Your task to perform on an android device: Clear the shopping cart on newegg. Search for "logitech g910" on newegg, select the first entry, add it to the cart, then select checkout. Image 0: 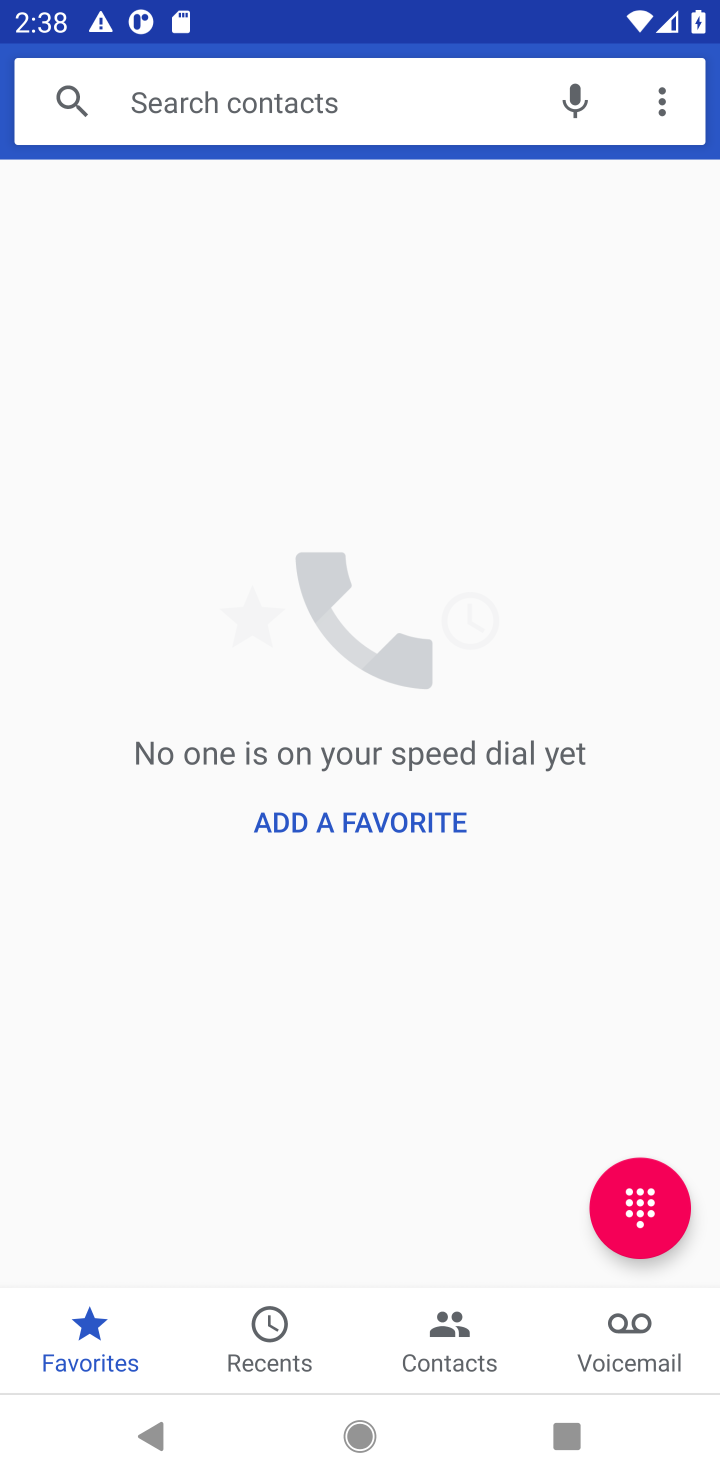
Step 0: press home button
Your task to perform on an android device: Clear the shopping cart on newegg. Search for "logitech g910" on newegg, select the first entry, add it to the cart, then select checkout. Image 1: 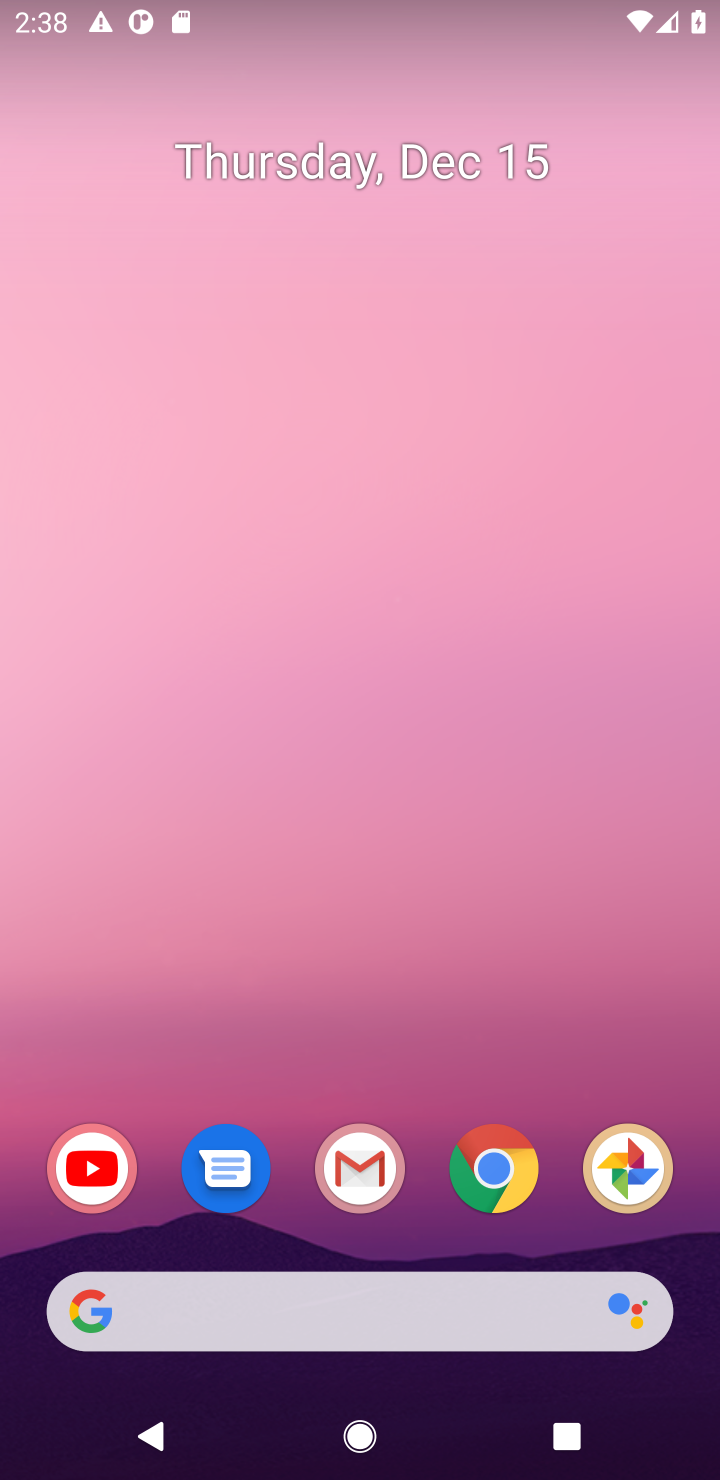
Step 1: click (483, 1185)
Your task to perform on an android device: Clear the shopping cart on newegg. Search for "logitech g910" on newegg, select the first entry, add it to the cart, then select checkout. Image 2: 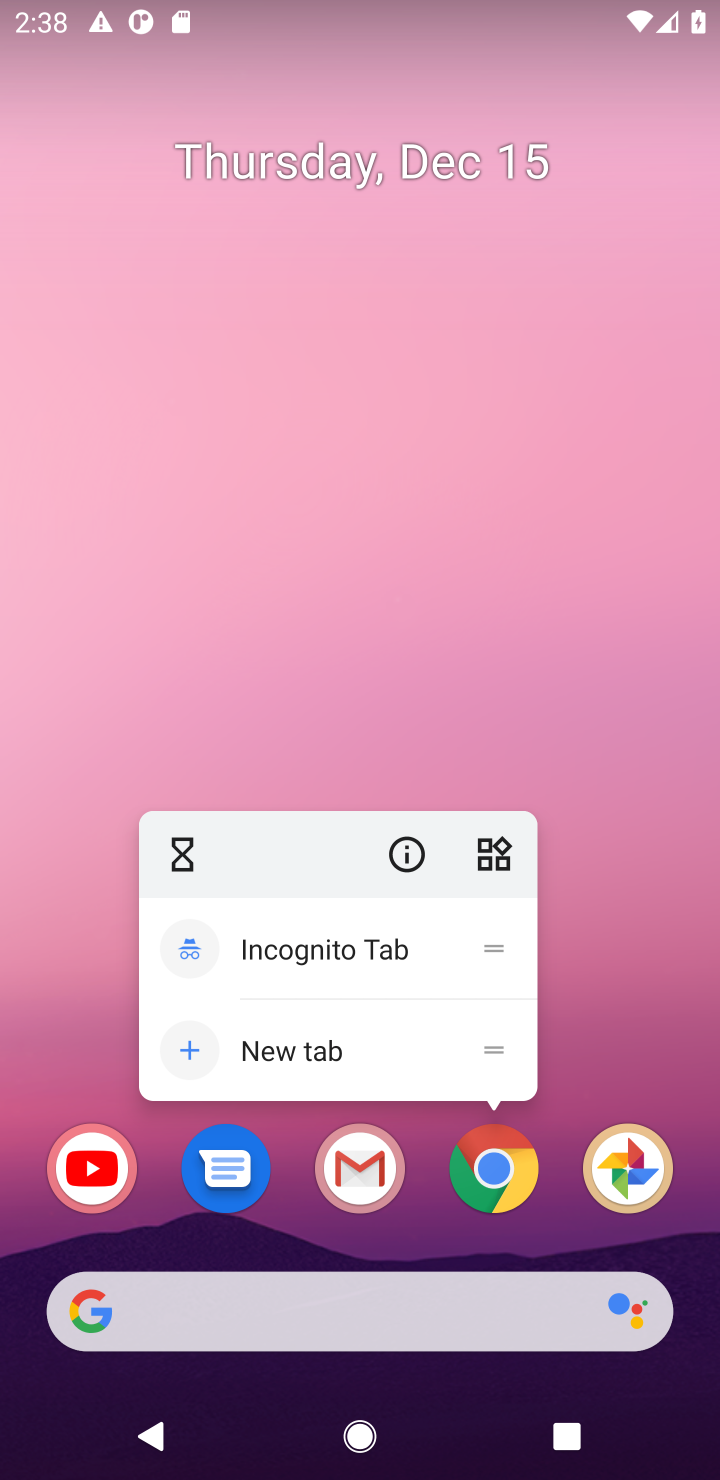
Step 2: click (484, 1187)
Your task to perform on an android device: Clear the shopping cart on newegg. Search for "logitech g910" on newegg, select the first entry, add it to the cart, then select checkout. Image 3: 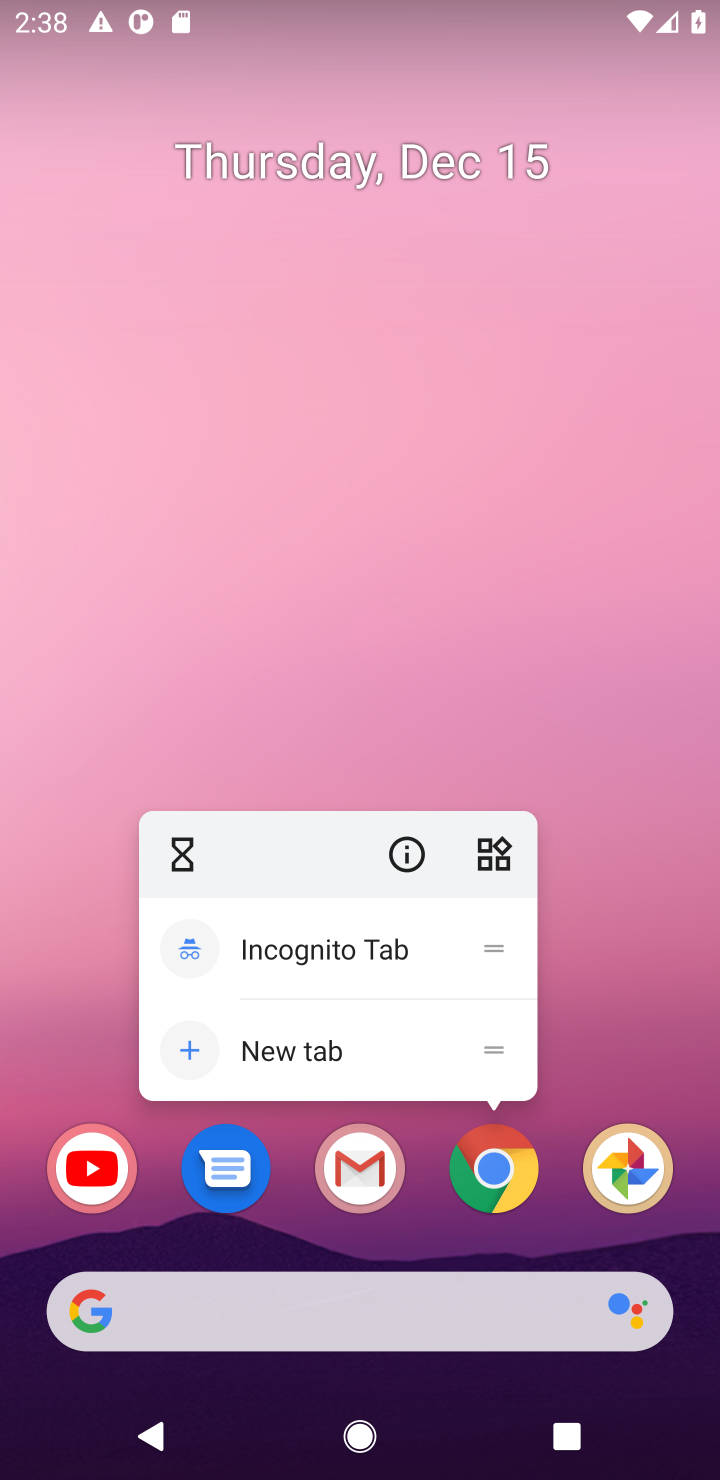
Step 3: click (484, 1187)
Your task to perform on an android device: Clear the shopping cart on newegg. Search for "logitech g910" on newegg, select the first entry, add it to the cart, then select checkout. Image 4: 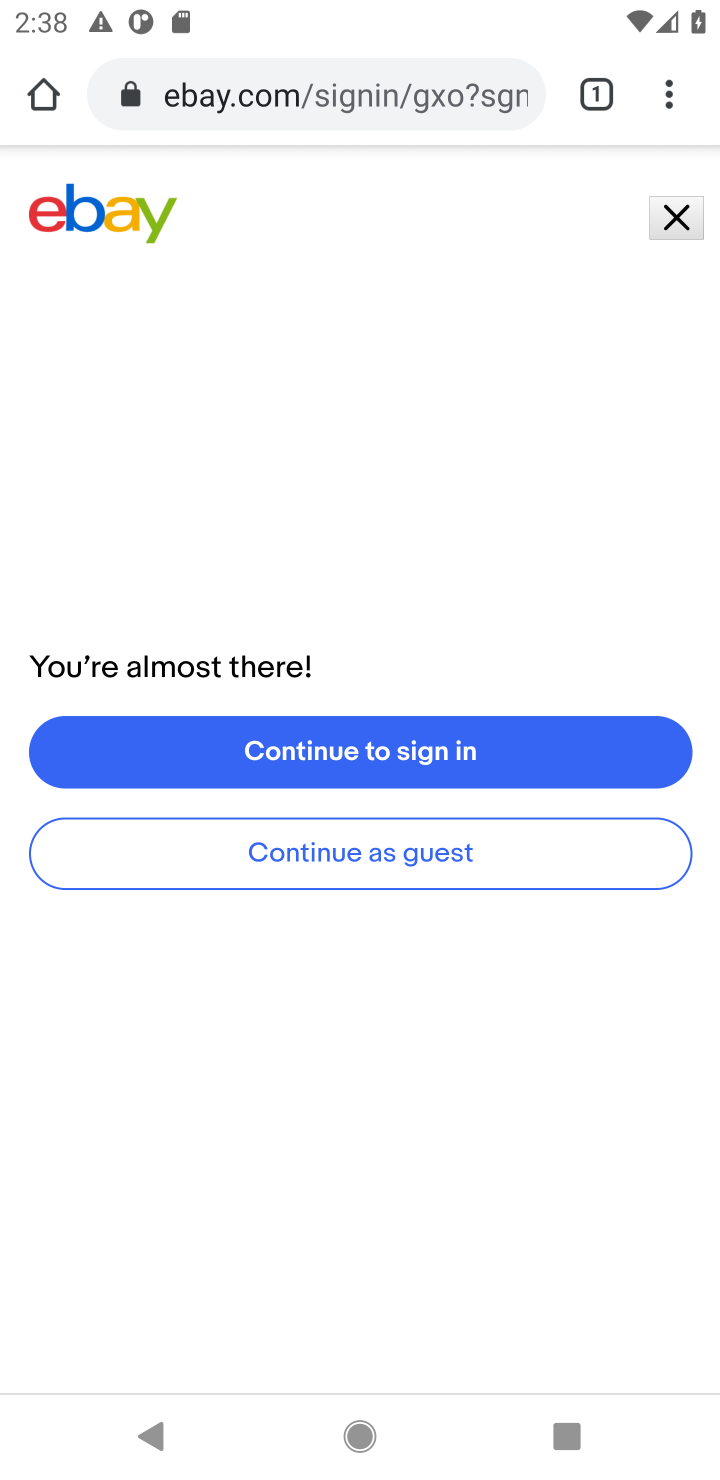
Step 4: click (693, 236)
Your task to perform on an android device: Clear the shopping cart on newegg. Search for "logitech g910" on newegg, select the first entry, add it to the cart, then select checkout. Image 5: 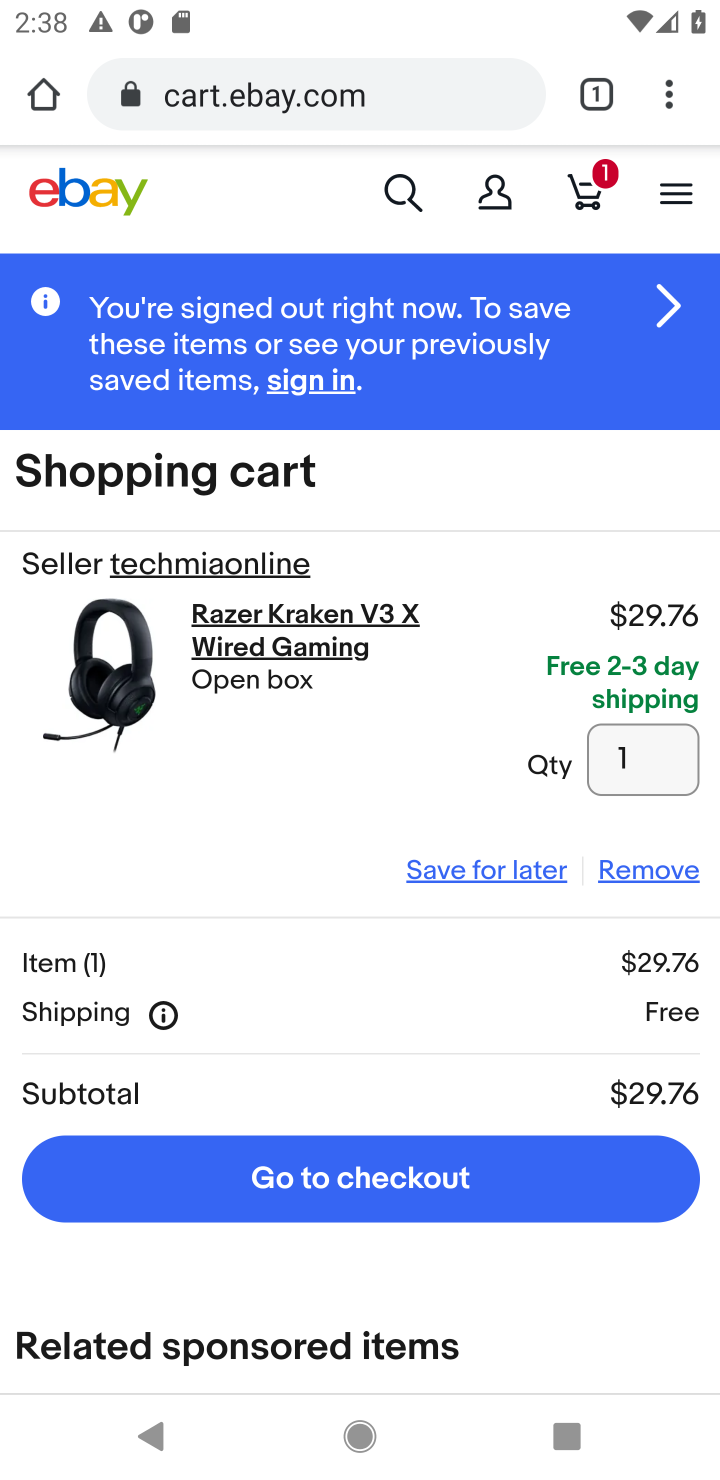
Step 5: click (258, 96)
Your task to perform on an android device: Clear the shopping cart on newegg. Search for "logitech g910" on newegg, select the first entry, add it to the cart, then select checkout. Image 6: 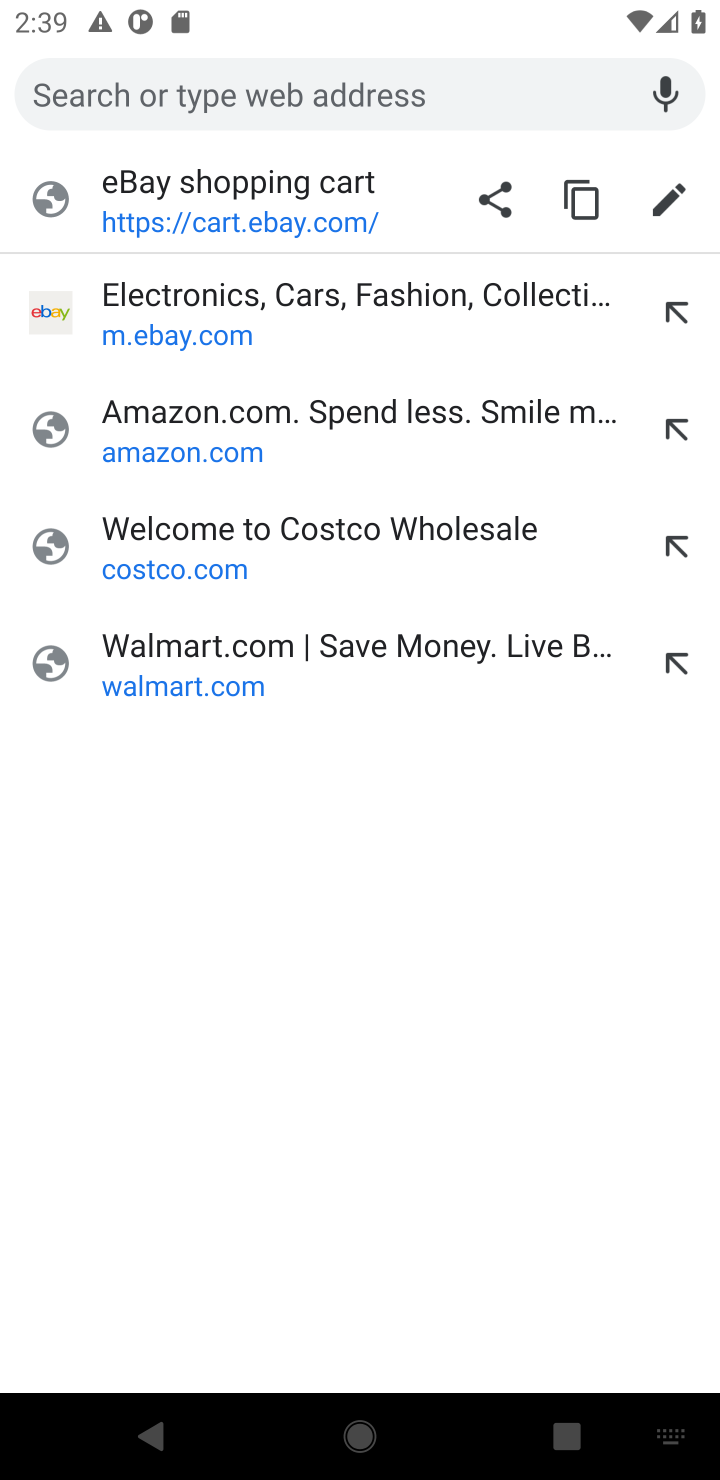
Step 6: type "newegg"
Your task to perform on an android device: Clear the shopping cart on newegg. Search for "logitech g910" on newegg, select the first entry, add it to the cart, then select checkout. Image 7: 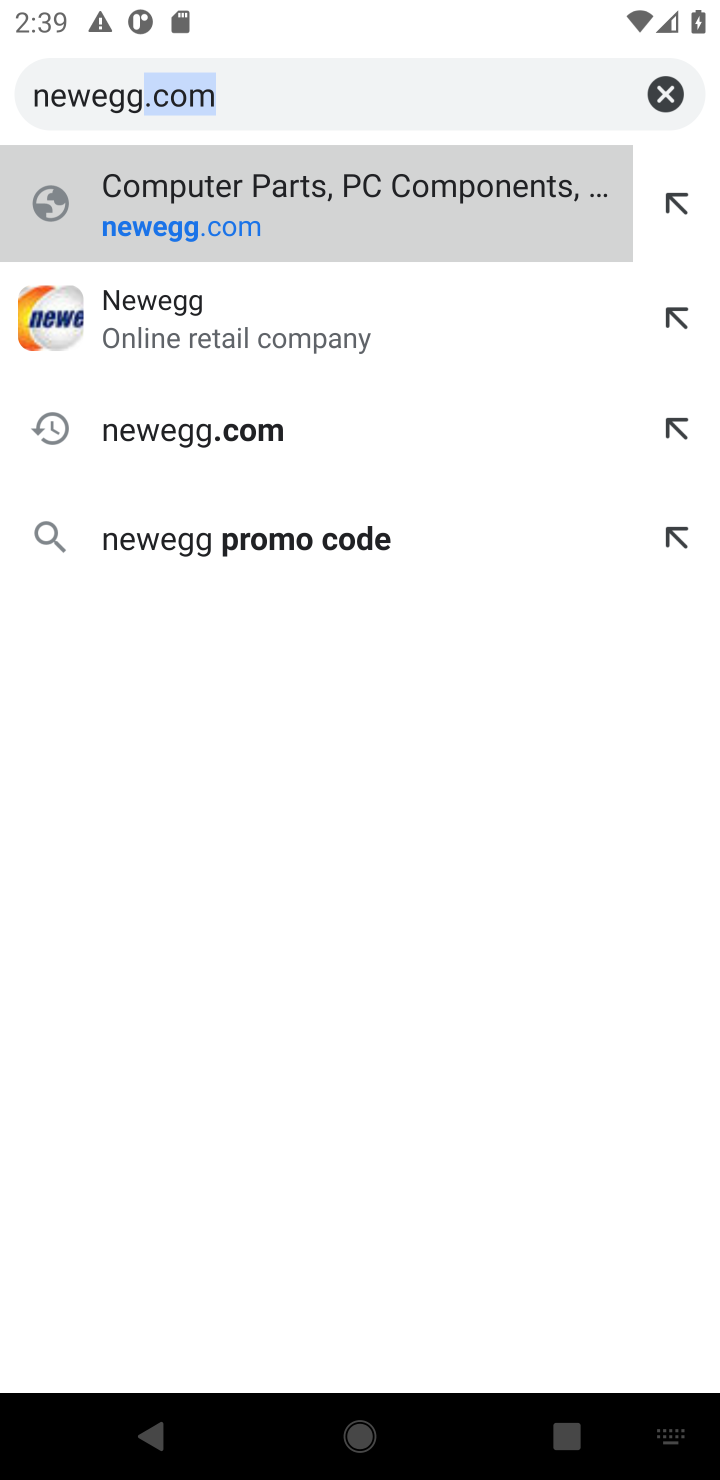
Step 7: press enter
Your task to perform on an android device: Clear the shopping cart on newegg. Search for "logitech g910" on newegg, select the first entry, add it to the cart, then select checkout. Image 8: 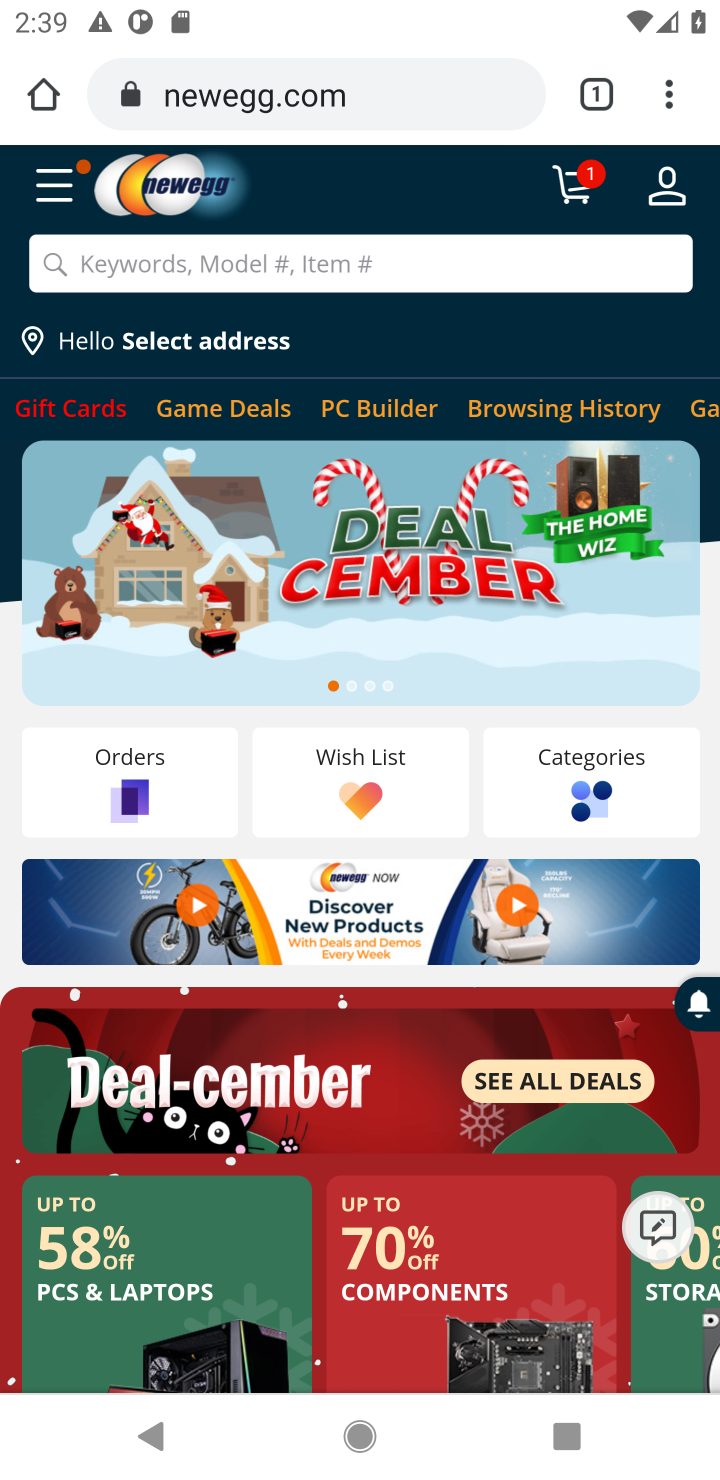
Step 8: click (567, 213)
Your task to perform on an android device: Clear the shopping cart on newegg. Search for "logitech g910" on newegg, select the first entry, add it to the cart, then select checkout. Image 9: 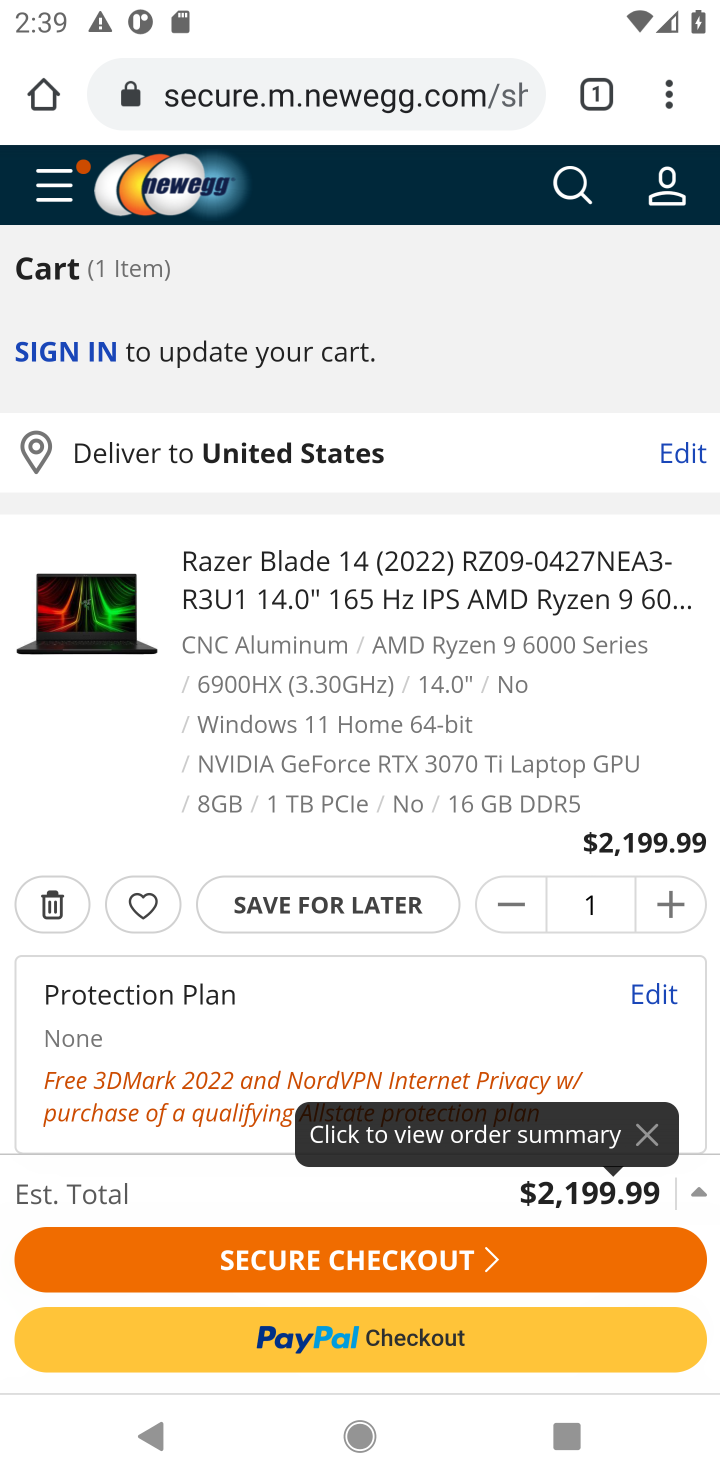
Step 9: click (62, 901)
Your task to perform on an android device: Clear the shopping cart on newegg. Search for "logitech g910" on newegg, select the first entry, add it to the cart, then select checkout. Image 10: 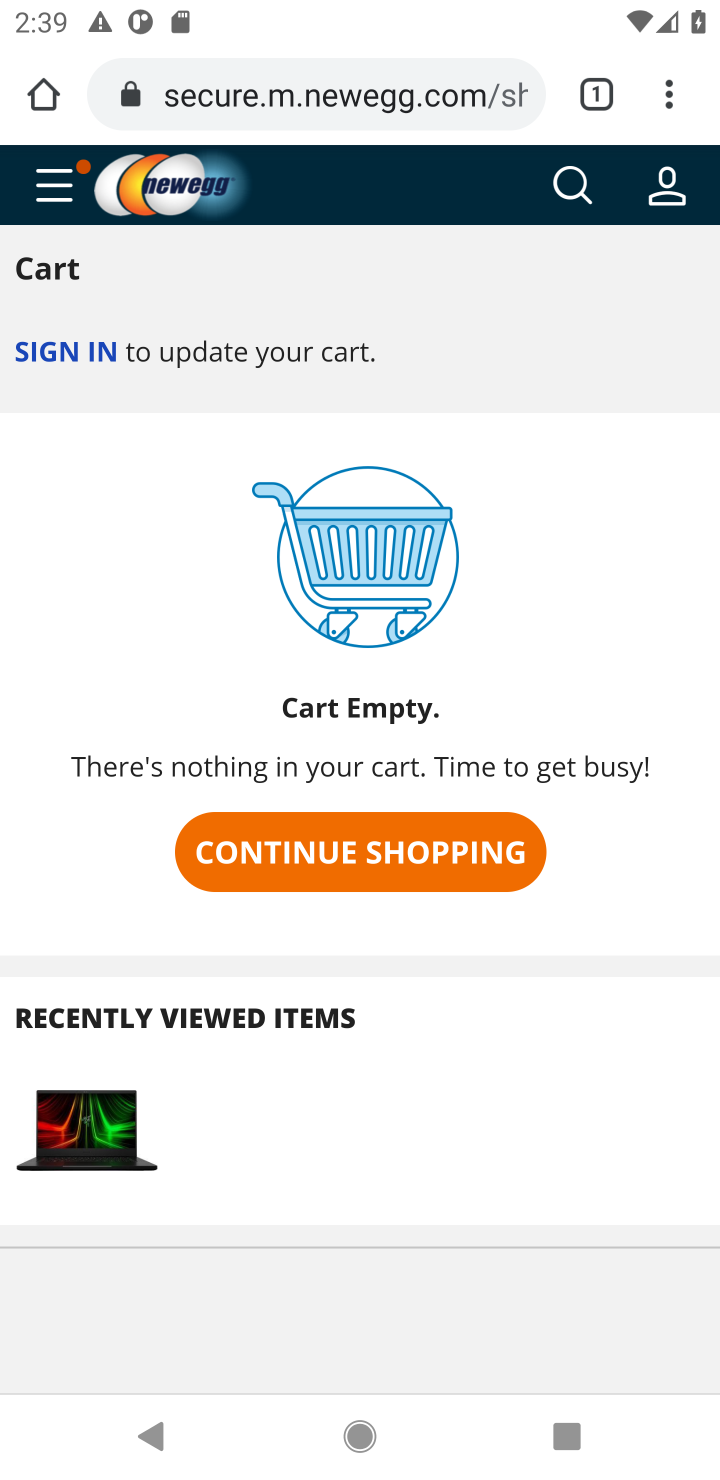
Step 10: click (554, 180)
Your task to perform on an android device: Clear the shopping cart on newegg. Search for "logitech g910" on newegg, select the first entry, add it to the cart, then select checkout. Image 11: 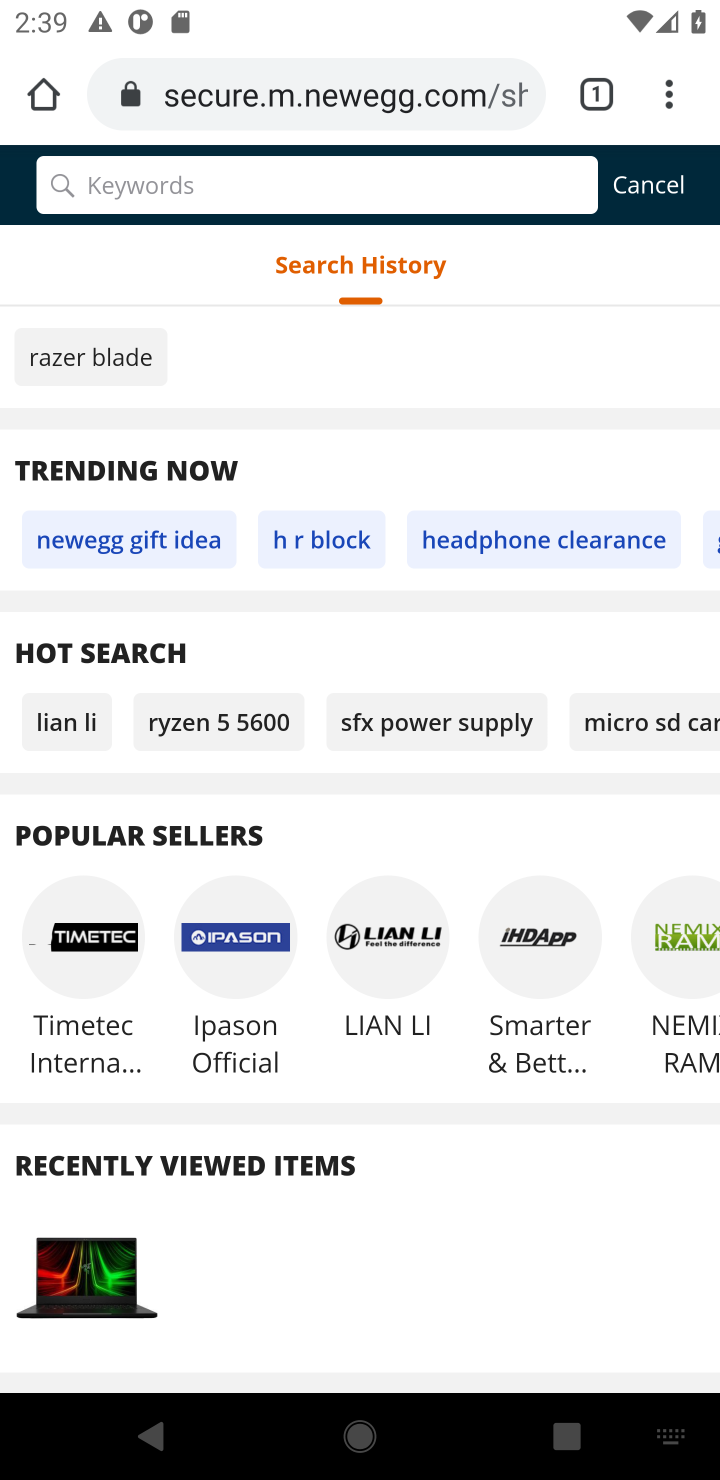
Step 11: type "logitech g910"
Your task to perform on an android device: Clear the shopping cart on newegg. Search for "logitech g910" on newegg, select the first entry, add it to the cart, then select checkout. Image 12: 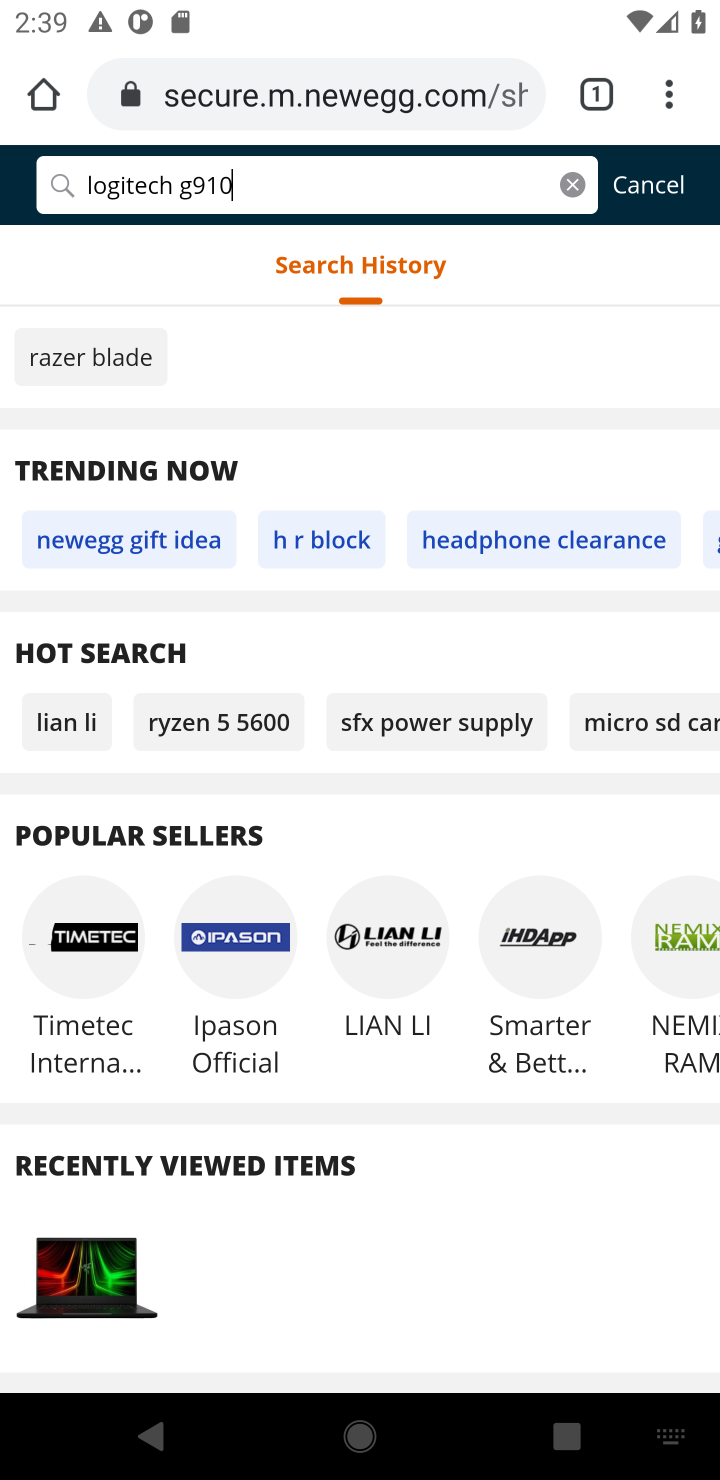
Step 12: press enter
Your task to perform on an android device: Clear the shopping cart on newegg. Search for "logitech g910" on newegg, select the first entry, add it to the cart, then select checkout. Image 13: 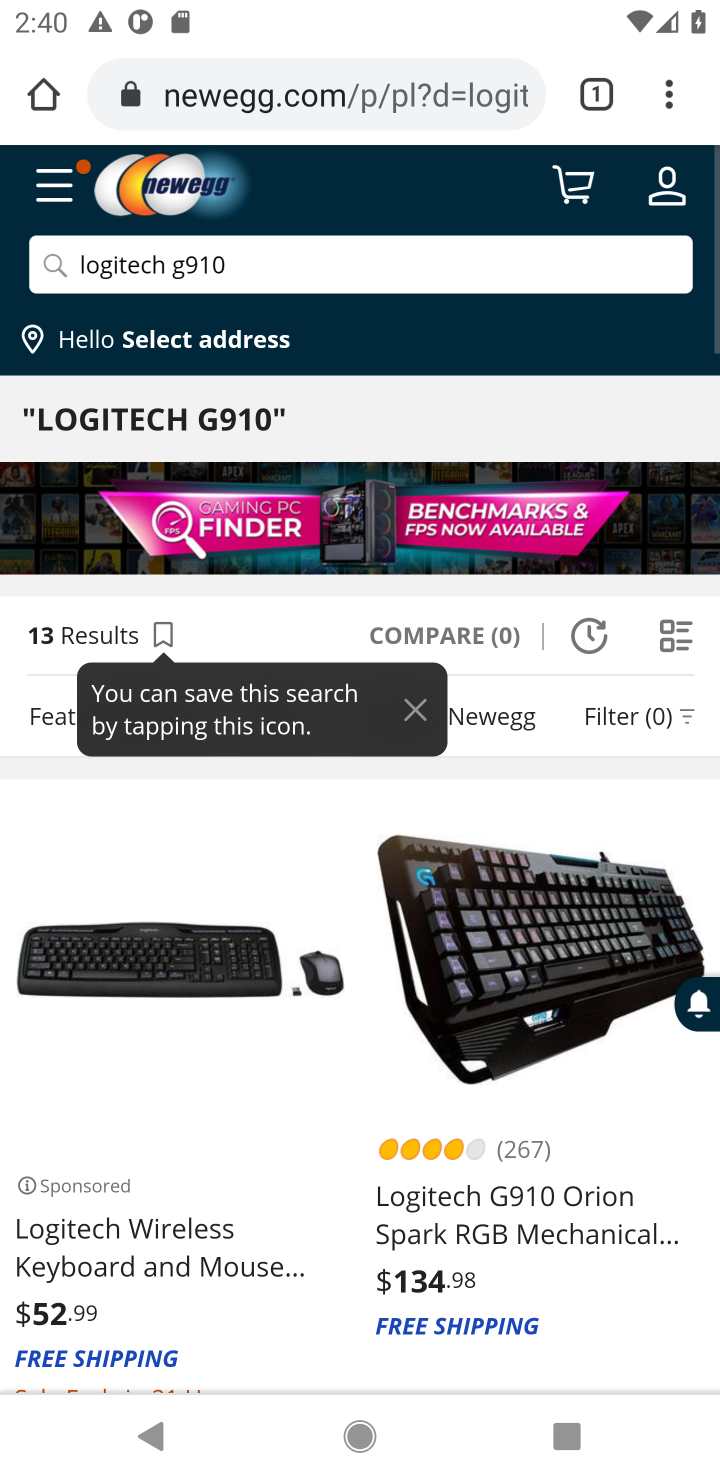
Step 13: click (508, 994)
Your task to perform on an android device: Clear the shopping cart on newegg. Search for "logitech g910" on newegg, select the first entry, add it to the cart, then select checkout. Image 14: 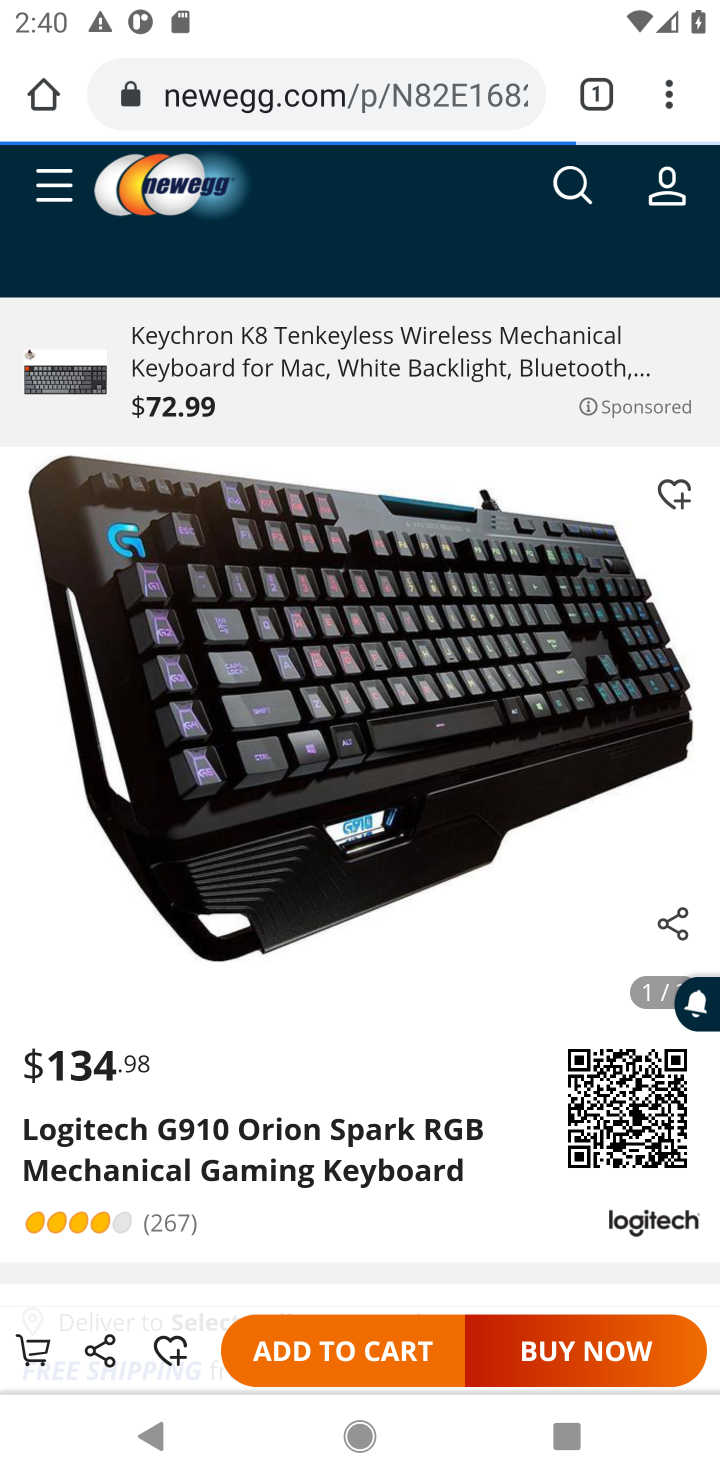
Step 14: click (358, 1357)
Your task to perform on an android device: Clear the shopping cart on newegg. Search for "logitech g910" on newegg, select the first entry, add it to the cart, then select checkout. Image 15: 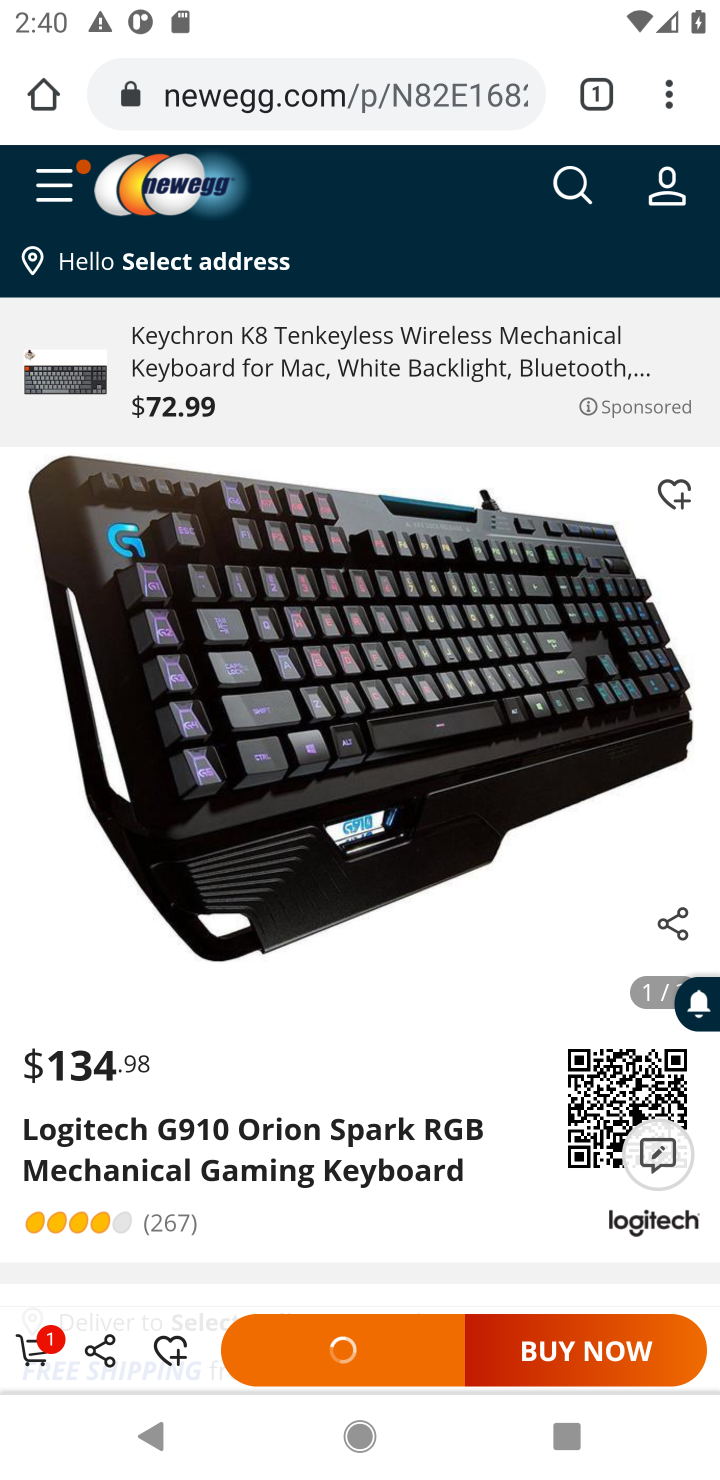
Step 15: click (28, 1341)
Your task to perform on an android device: Clear the shopping cart on newegg. Search for "logitech g910" on newegg, select the first entry, add it to the cart, then select checkout. Image 16: 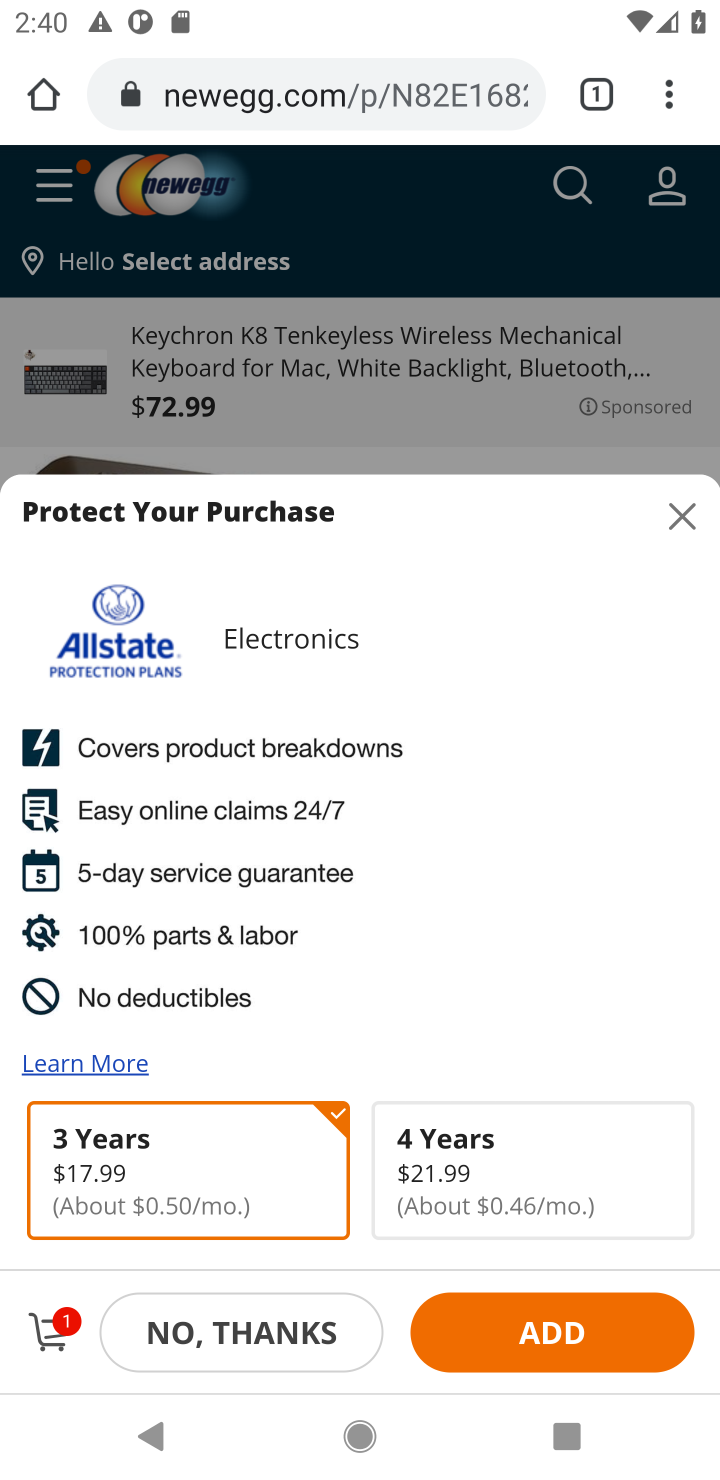
Step 16: click (52, 1323)
Your task to perform on an android device: Clear the shopping cart on newegg. Search for "logitech g910" on newegg, select the first entry, add it to the cart, then select checkout. Image 17: 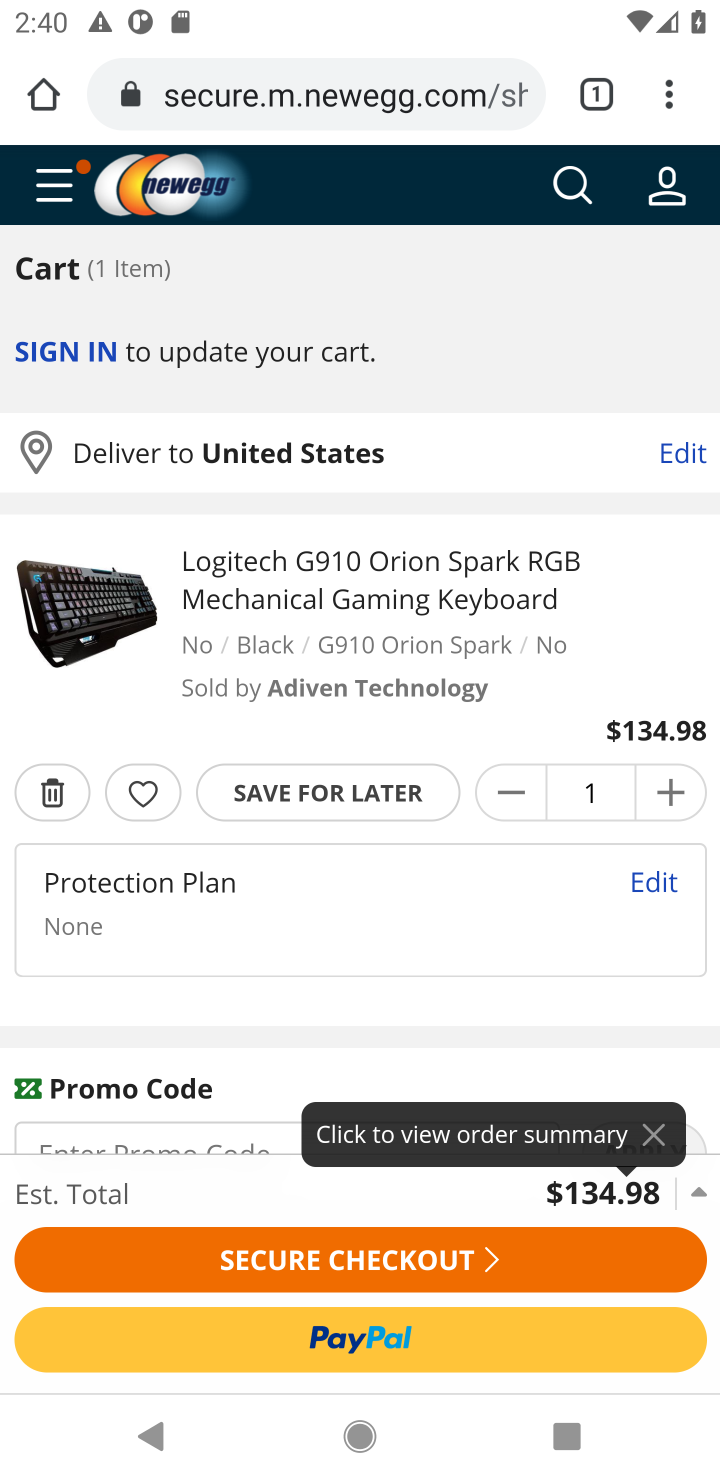
Step 17: click (394, 1327)
Your task to perform on an android device: Clear the shopping cart on newegg. Search for "logitech g910" on newegg, select the first entry, add it to the cart, then select checkout. Image 18: 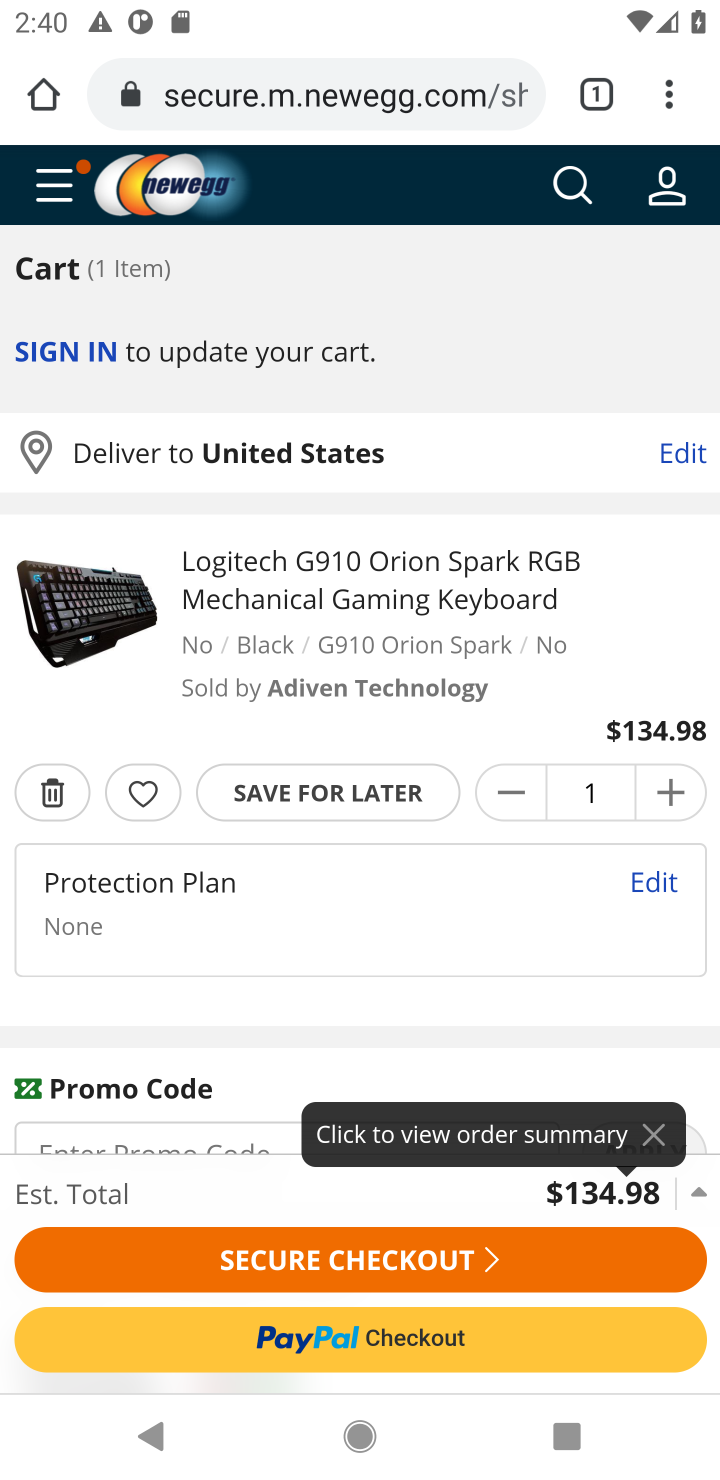
Step 18: click (371, 1247)
Your task to perform on an android device: Clear the shopping cart on newegg. Search for "logitech g910" on newegg, select the first entry, add it to the cart, then select checkout. Image 19: 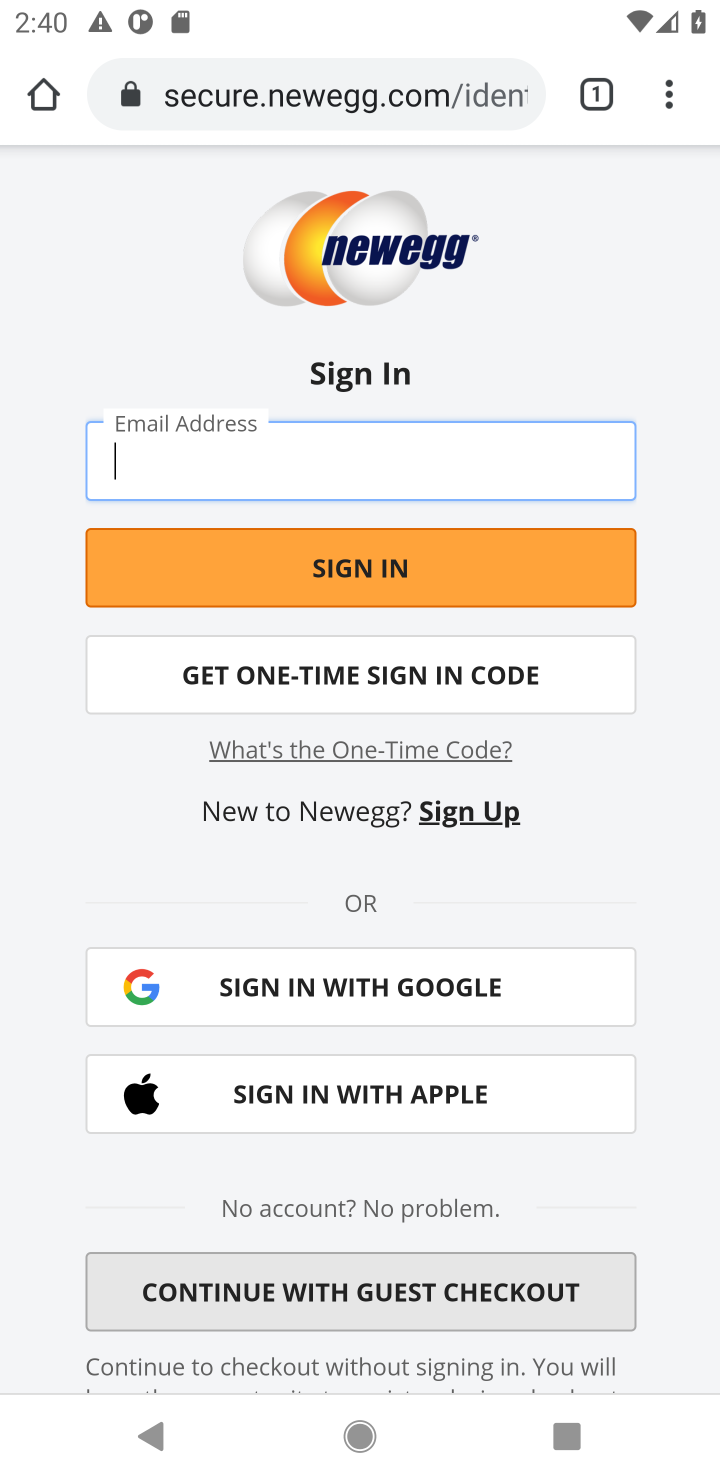
Step 19: task complete